Your task to perform on an android device: open app "Spotify" Image 0: 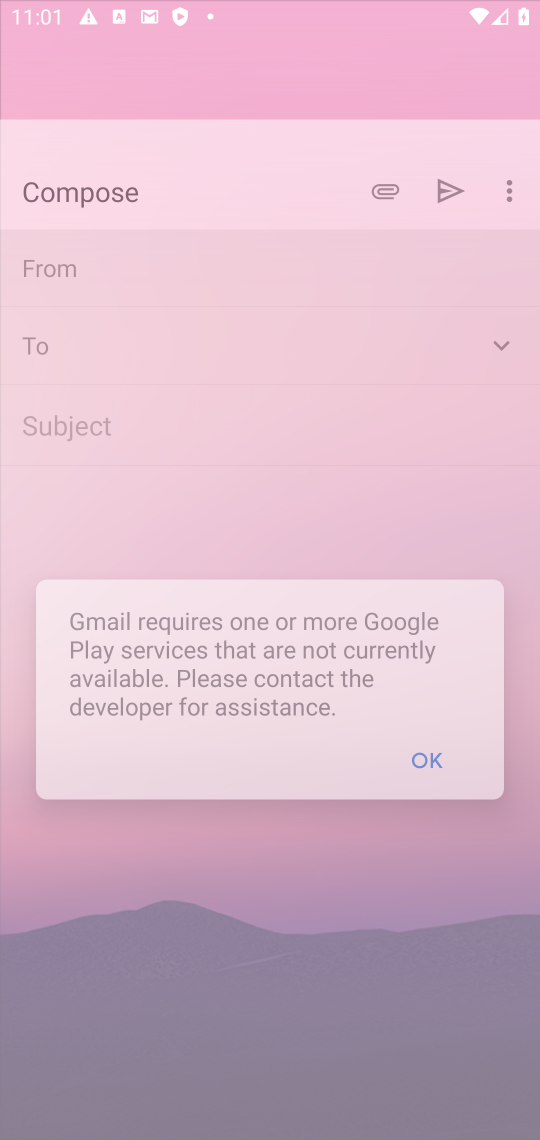
Step 0: press home button
Your task to perform on an android device: open app "Spotify" Image 1: 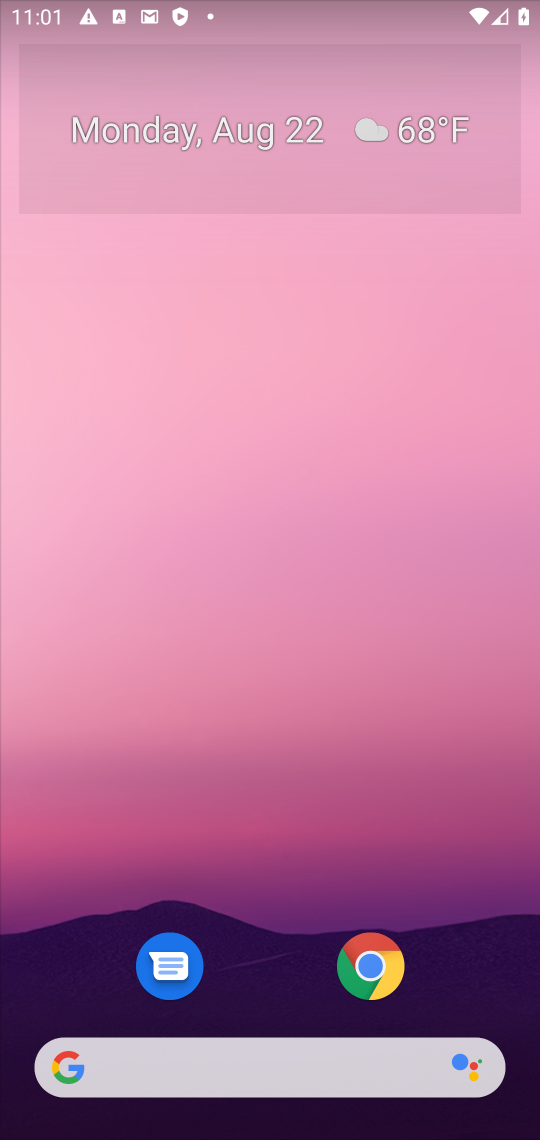
Step 1: drag from (457, 991) to (465, 79)
Your task to perform on an android device: open app "Spotify" Image 2: 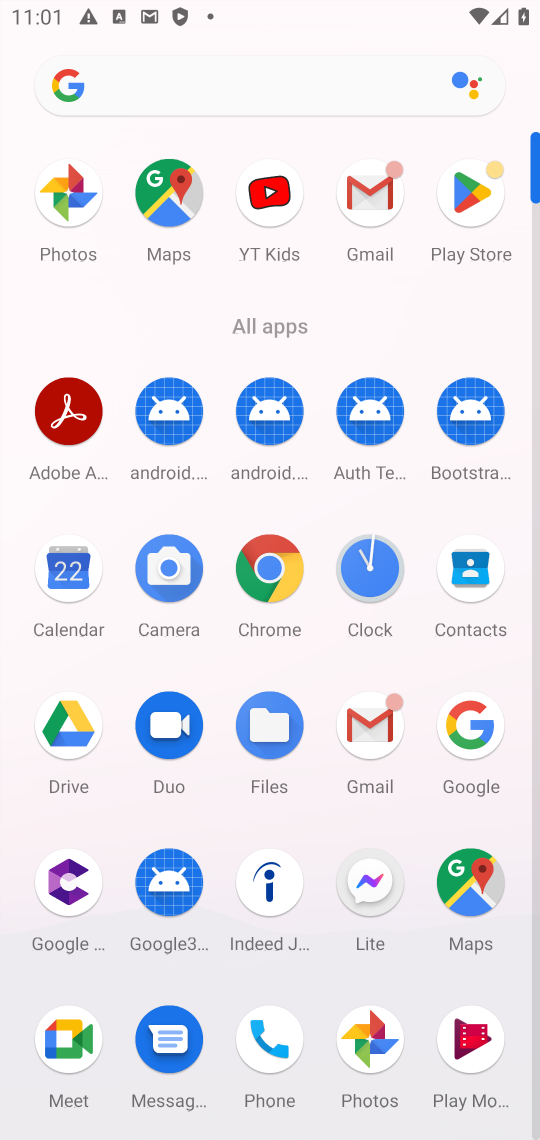
Step 2: click (461, 200)
Your task to perform on an android device: open app "Spotify" Image 3: 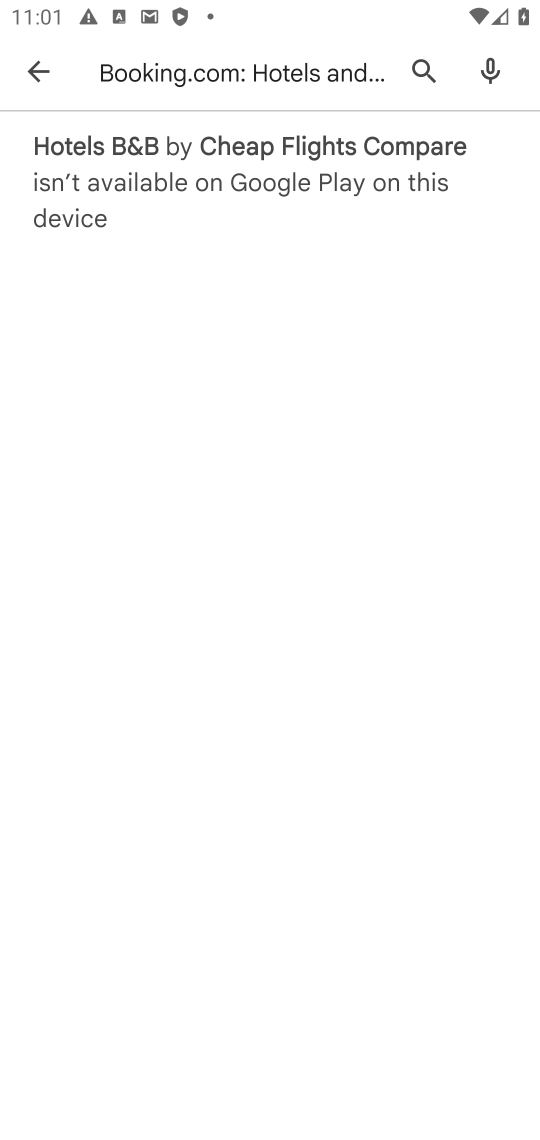
Step 3: press back button
Your task to perform on an android device: open app "Spotify" Image 4: 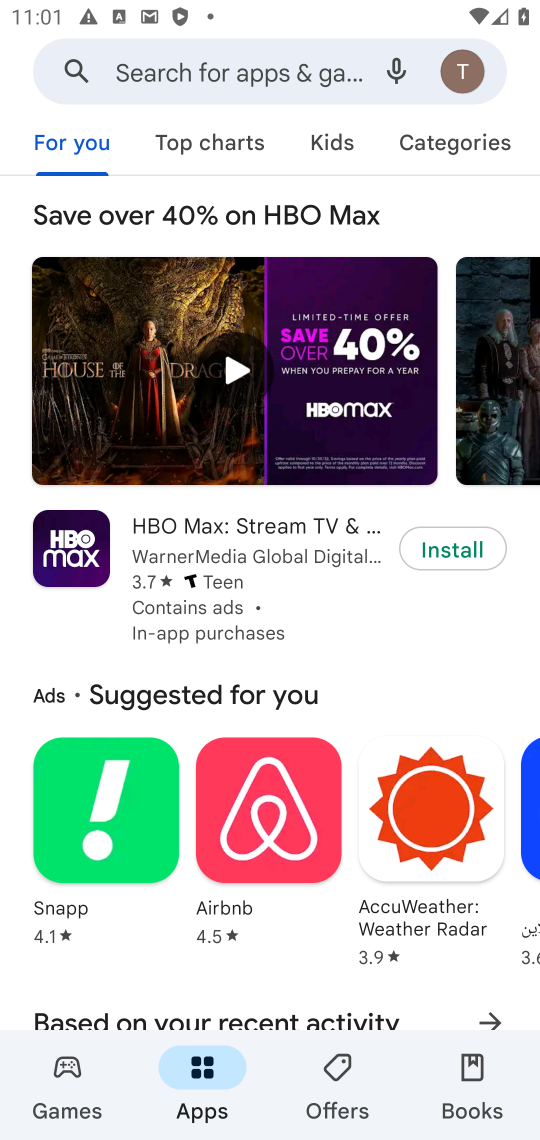
Step 4: click (227, 74)
Your task to perform on an android device: open app "Spotify" Image 5: 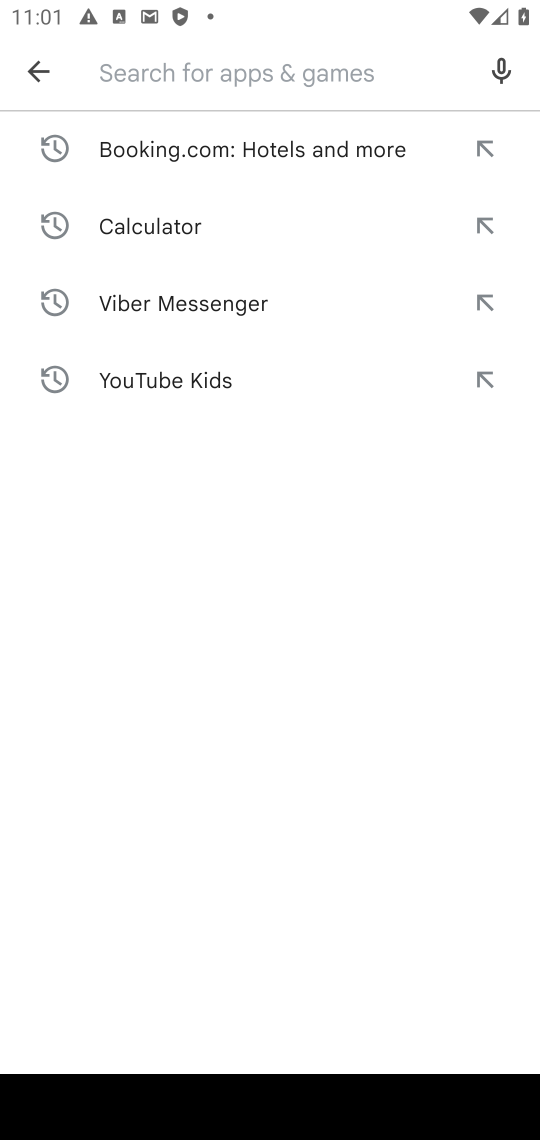
Step 5: type "Spotify"
Your task to perform on an android device: open app "Spotify" Image 6: 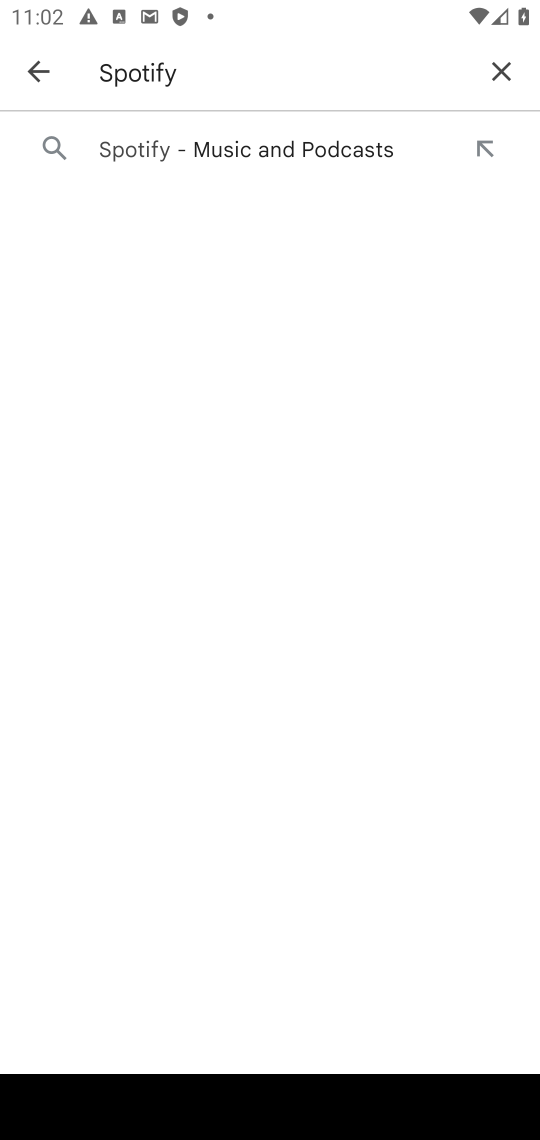
Step 6: click (290, 144)
Your task to perform on an android device: open app "Spotify" Image 7: 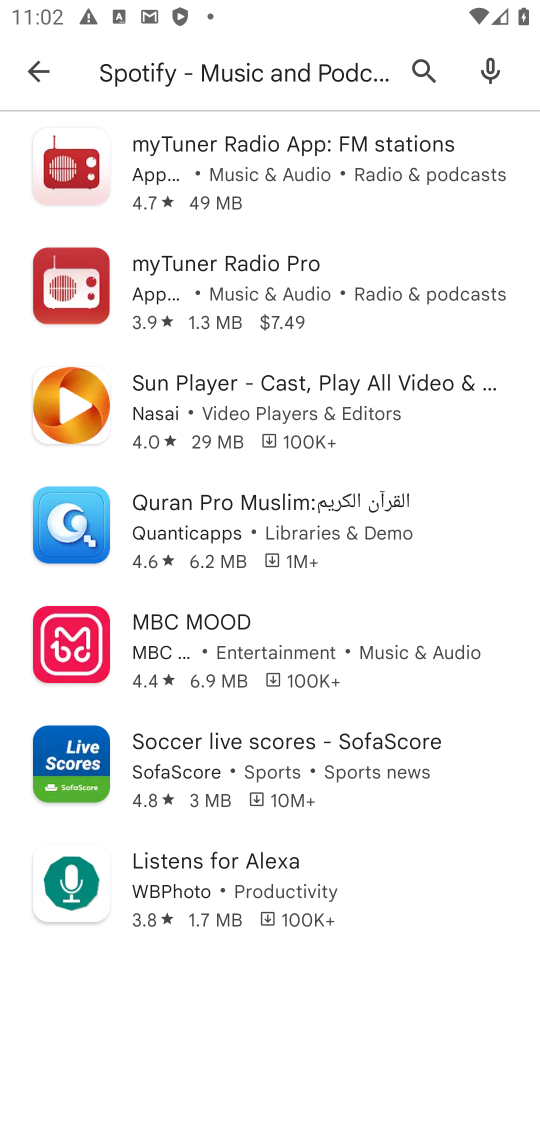
Step 7: task complete